Your task to perform on an android device: Open Chrome and go to settings Image 0: 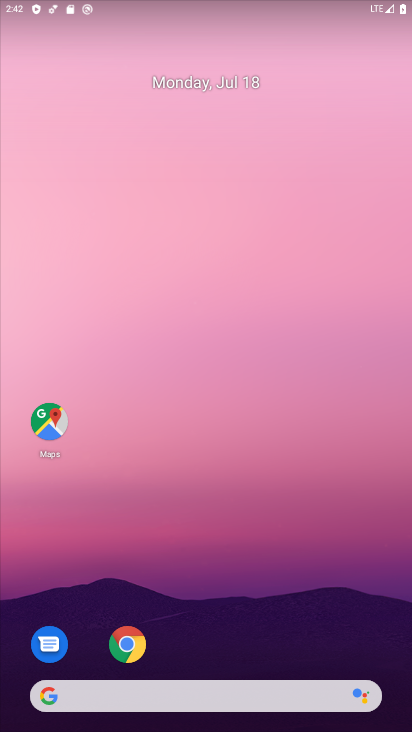
Step 0: click (135, 638)
Your task to perform on an android device: Open Chrome and go to settings Image 1: 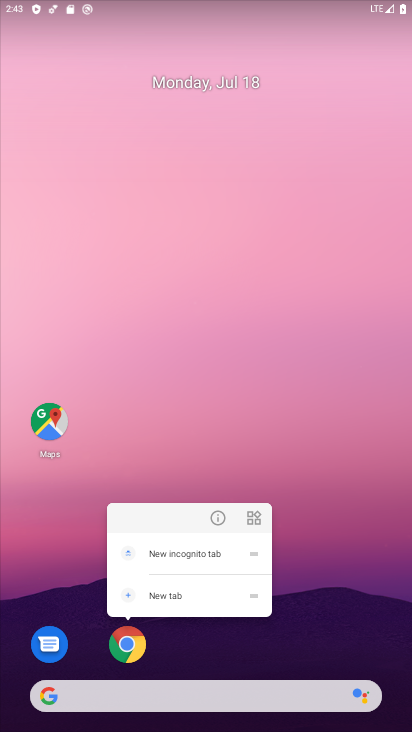
Step 1: click (138, 648)
Your task to perform on an android device: Open Chrome and go to settings Image 2: 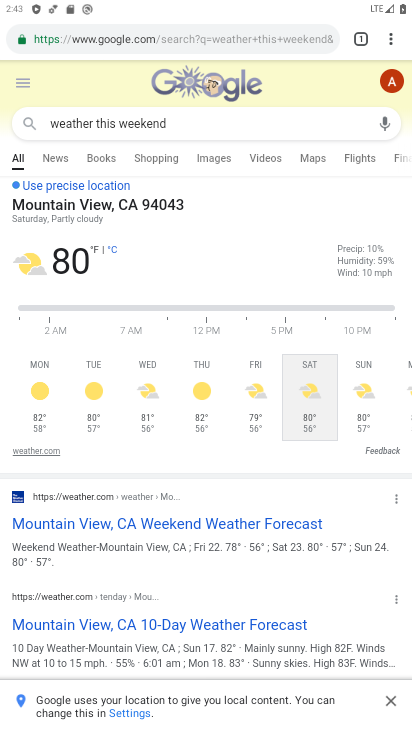
Step 2: task complete